Your task to perform on an android device: Show me popular games on the Play Store Image 0: 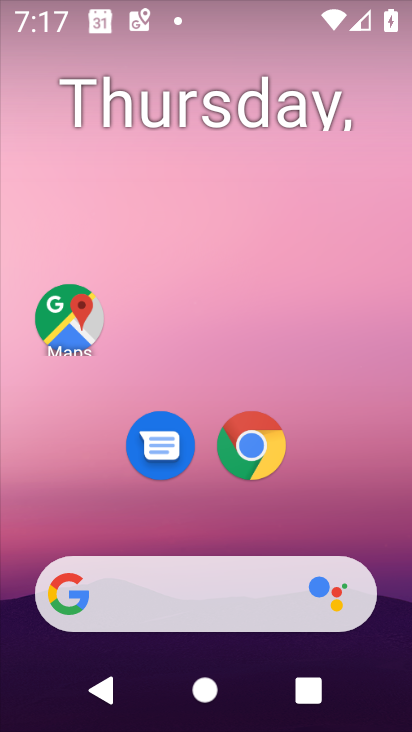
Step 0: drag from (381, 666) to (348, 168)
Your task to perform on an android device: Show me popular games on the Play Store Image 1: 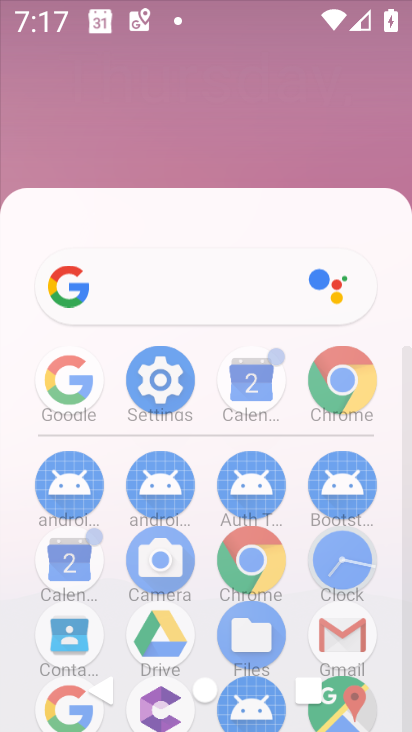
Step 1: click (284, 72)
Your task to perform on an android device: Show me popular games on the Play Store Image 2: 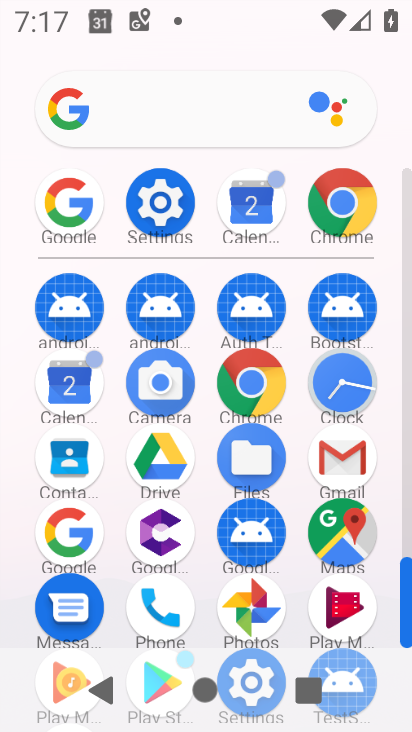
Step 2: drag from (217, 626) to (213, 143)
Your task to perform on an android device: Show me popular games on the Play Store Image 3: 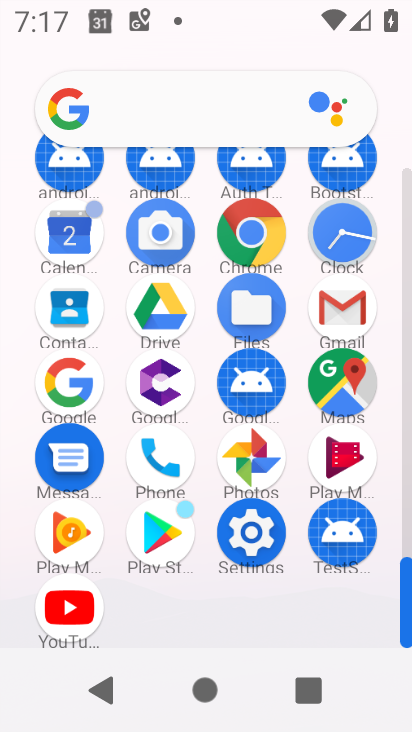
Step 3: click (166, 534)
Your task to perform on an android device: Show me popular games on the Play Store Image 4: 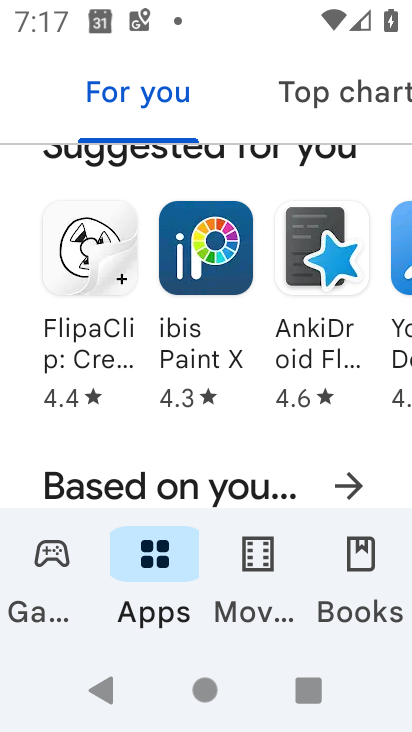
Step 4: click (72, 558)
Your task to perform on an android device: Show me popular games on the Play Store Image 5: 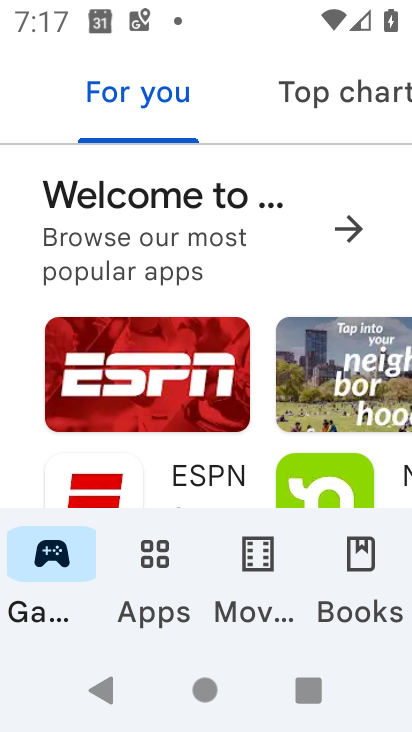
Step 5: drag from (148, 440) to (127, 82)
Your task to perform on an android device: Show me popular games on the Play Store Image 6: 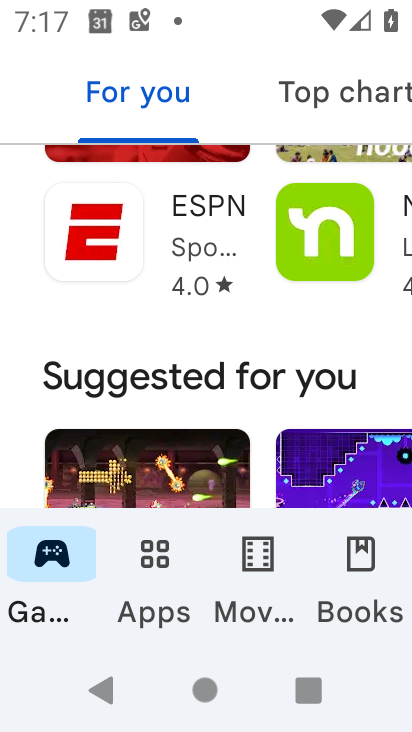
Step 6: drag from (262, 370) to (169, 24)
Your task to perform on an android device: Show me popular games on the Play Store Image 7: 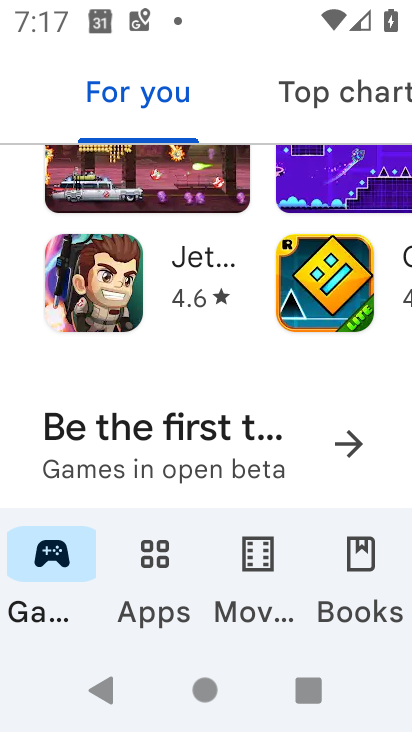
Step 7: drag from (199, 411) to (153, 3)
Your task to perform on an android device: Show me popular games on the Play Store Image 8: 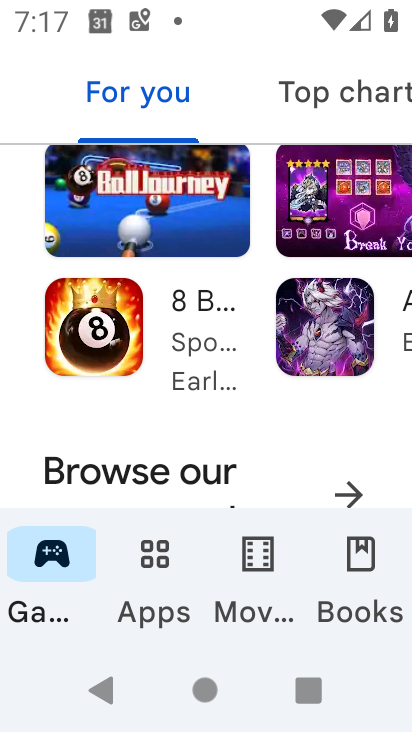
Step 8: drag from (227, 486) to (227, 118)
Your task to perform on an android device: Show me popular games on the Play Store Image 9: 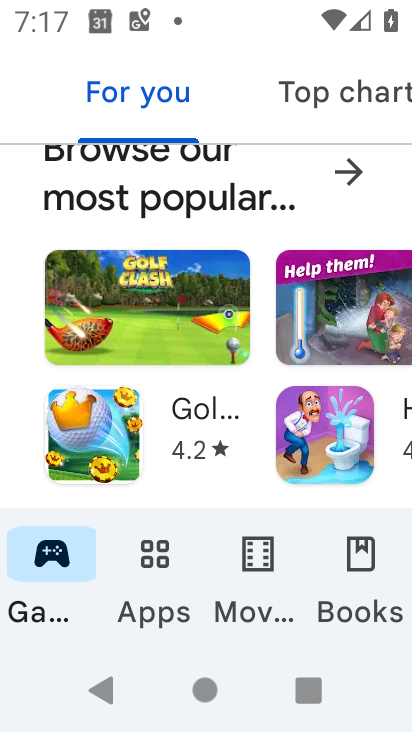
Step 9: drag from (241, 469) to (213, 93)
Your task to perform on an android device: Show me popular games on the Play Store Image 10: 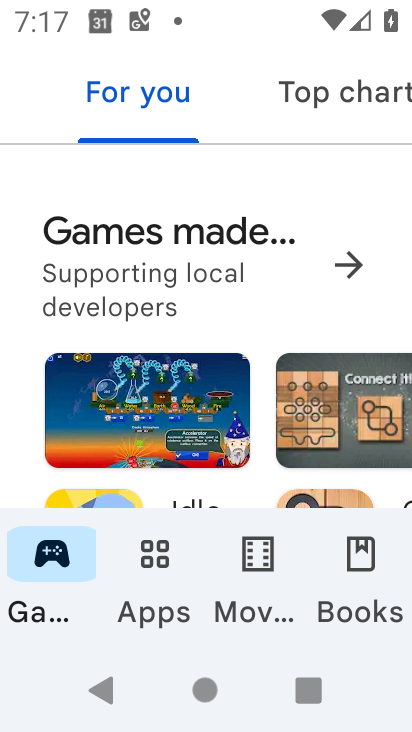
Step 10: drag from (253, 418) to (225, 132)
Your task to perform on an android device: Show me popular games on the Play Store Image 11: 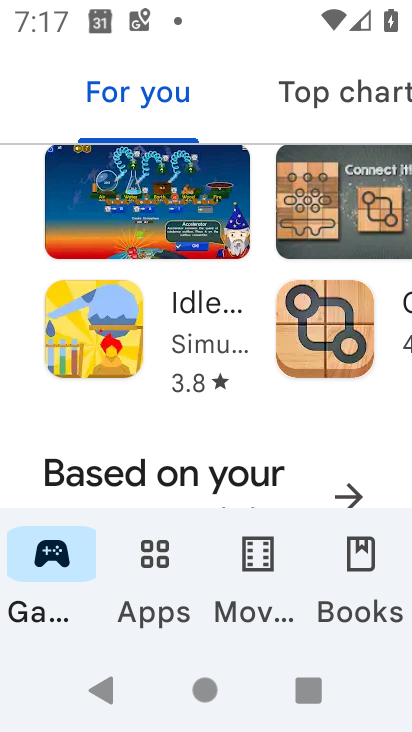
Step 11: drag from (236, 504) to (216, 120)
Your task to perform on an android device: Show me popular games on the Play Store Image 12: 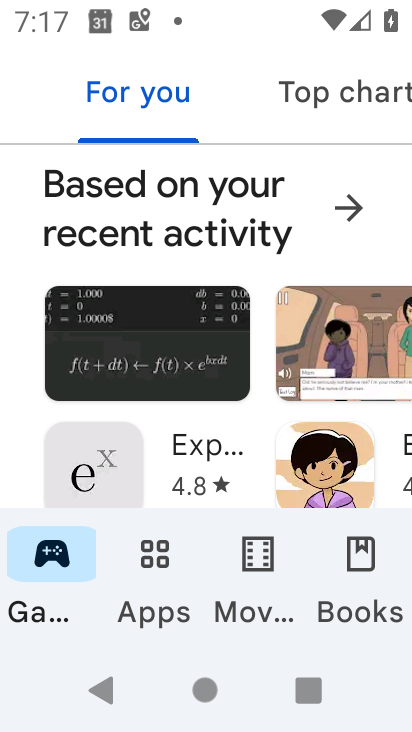
Step 12: drag from (226, 450) to (228, 119)
Your task to perform on an android device: Show me popular games on the Play Store Image 13: 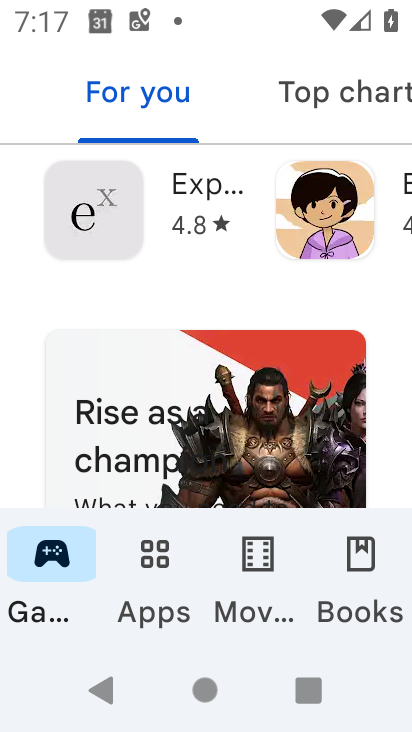
Step 13: drag from (240, 485) to (262, 112)
Your task to perform on an android device: Show me popular games on the Play Store Image 14: 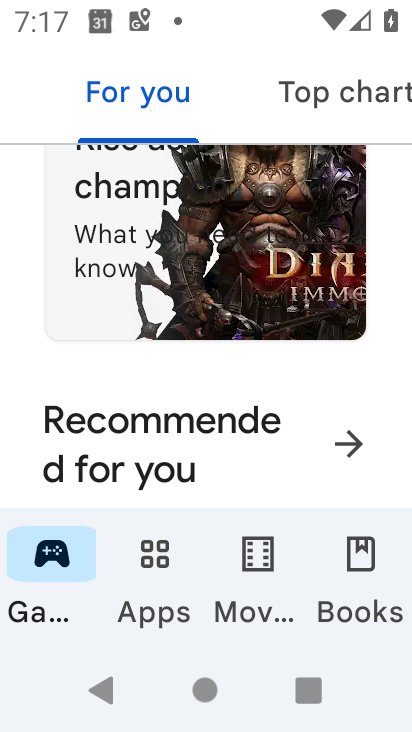
Step 14: click (301, 119)
Your task to perform on an android device: Show me popular games on the Play Store Image 15: 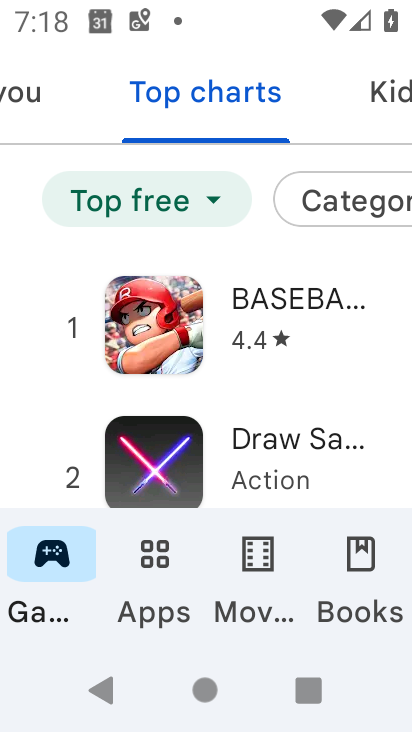
Step 15: task complete